Your task to perform on an android device: show emergency info Image 0: 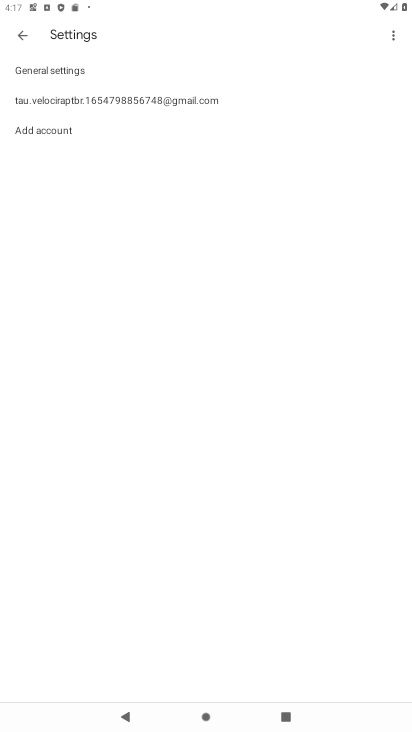
Step 0: press home button
Your task to perform on an android device: show emergency info Image 1: 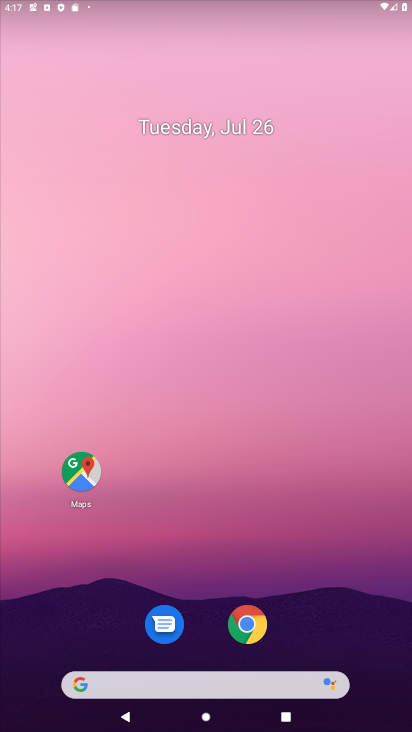
Step 1: drag from (191, 649) to (236, 1)
Your task to perform on an android device: show emergency info Image 2: 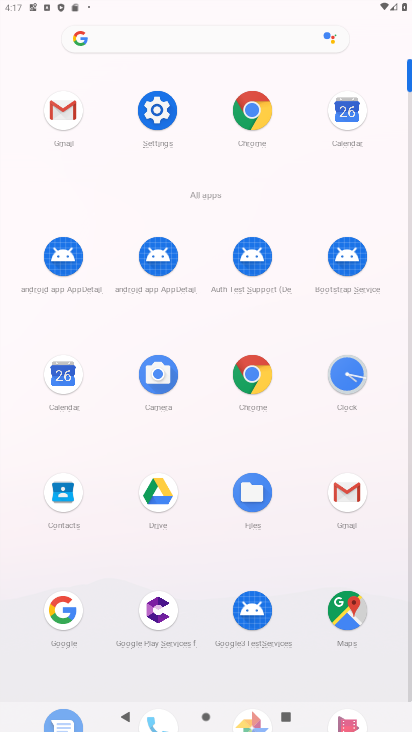
Step 2: click (159, 102)
Your task to perform on an android device: show emergency info Image 3: 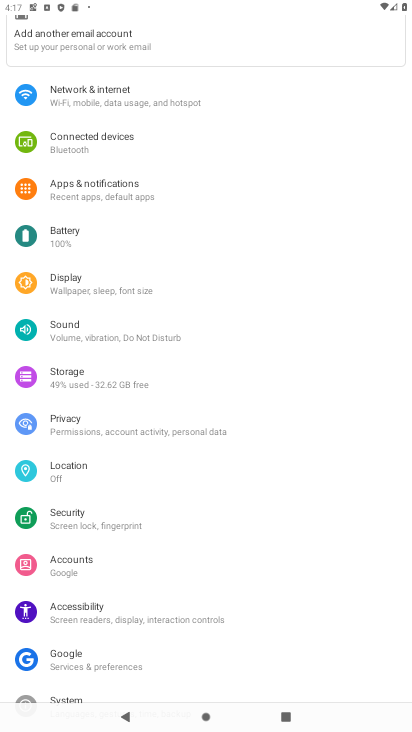
Step 3: drag from (174, 673) to (214, 160)
Your task to perform on an android device: show emergency info Image 4: 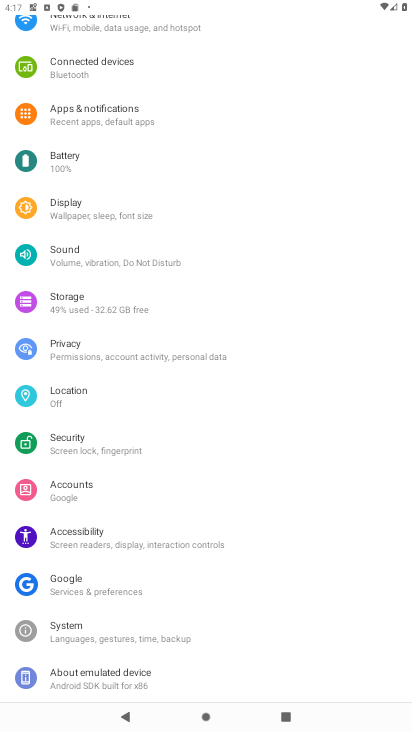
Step 4: click (117, 688)
Your task to perform on an android device: show emergency info Image 5: 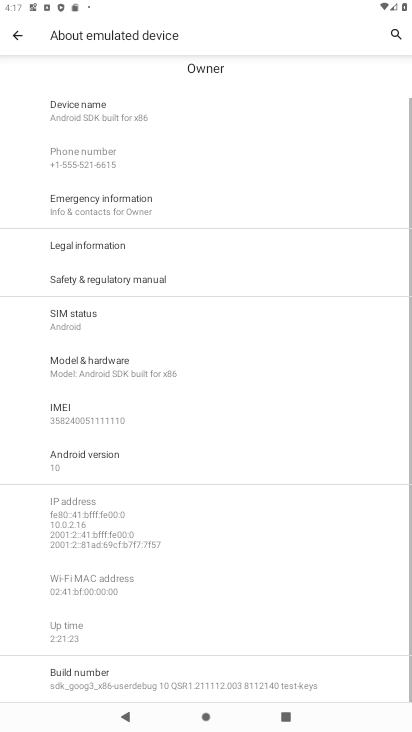
Step 5: click (141, 211)
Your task to perform on an android device: show emergency info Image 6: 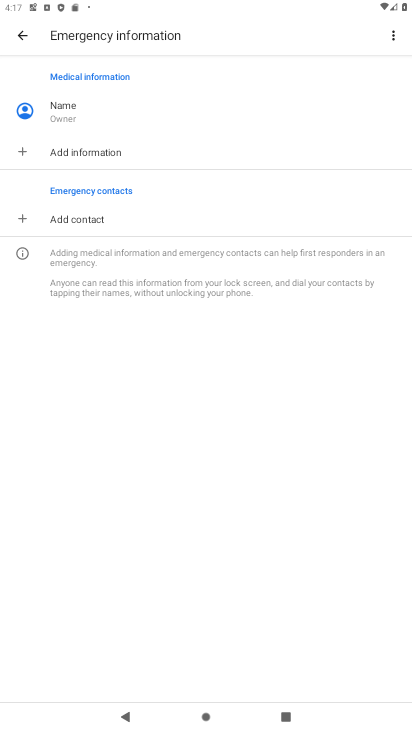
Step 6: task complete